Your task to perform on an android device: Open my contact list Image 0: 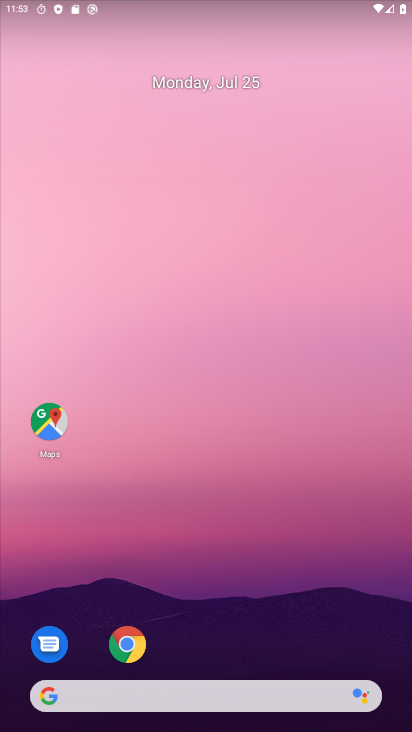
Step 0: drag from (283, 658) to (298, 57)
Your task to perform on an android device: Open my contact list Image 1: 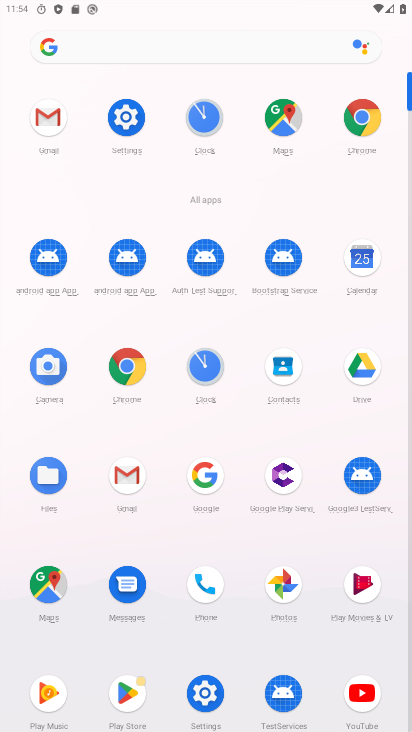
Step 1: click (195, 591)
Your task to perform on an android device: Open my contact list Image 2: 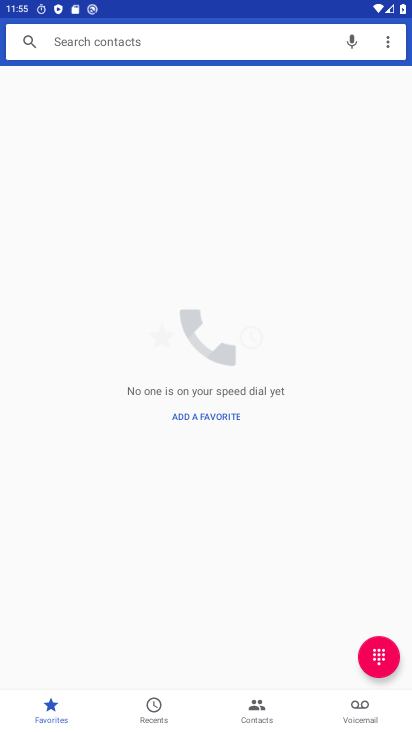
Step 2: click (250, 713)
Your task to perform on an android device: Open my contact list Image 3: 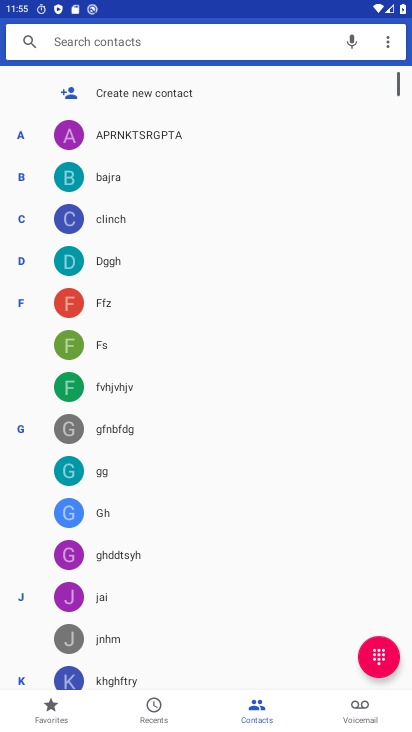
Step 3: task complete